Your task to perform on an android device: Show me popular games on the Play Store Image 0: 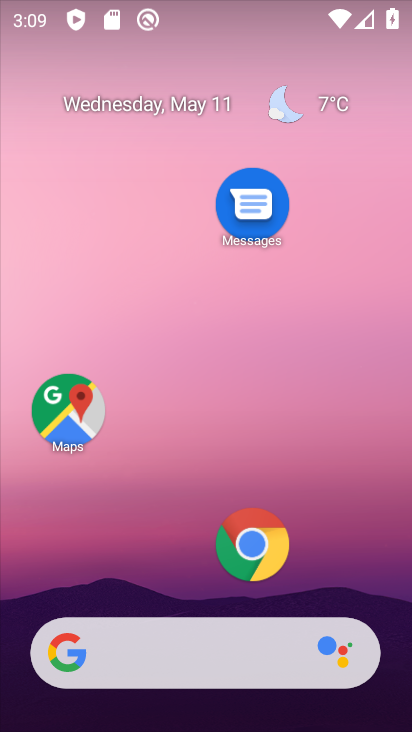
Step 0: drag from (94, 570) to (234, 70)
Your task to perform on an android device: Show me popular games on the Play Store Image 1: 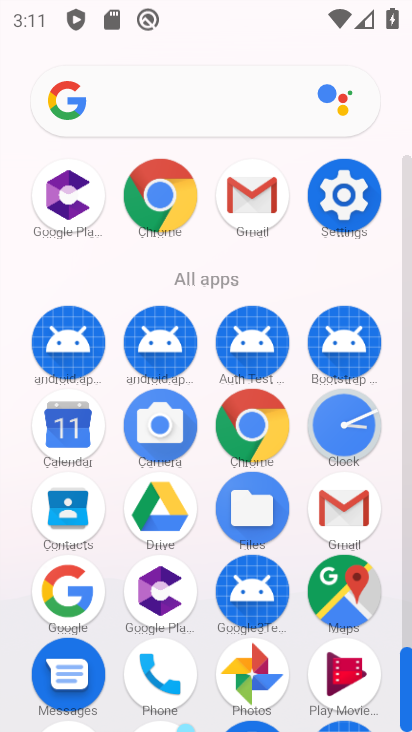
Step 1: drag from (182, 611) to (296, 104)
Your task to perform on an android device: Show me popular games on the Play Store Image 2: 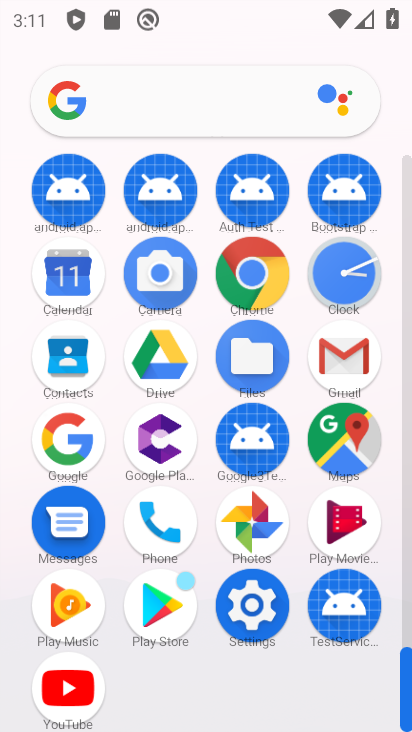
Step 2: click (174, 597)
Your task to perform on an android device: Show me popular games on the Play Store Image 3: 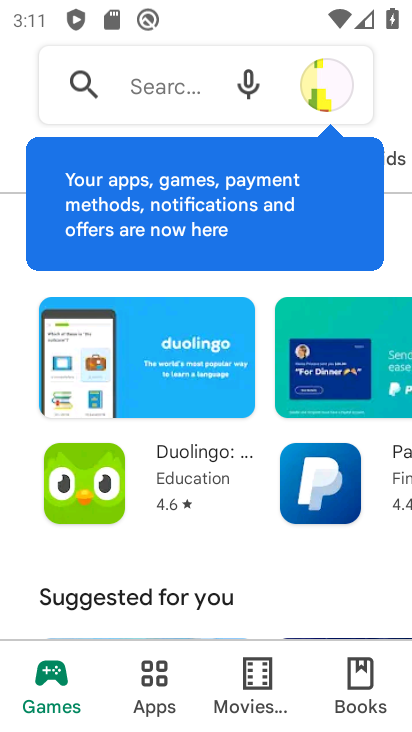
Step 3: click (65, 691)
Your task to perform on an android device: Show me popular games on the Play Store Image 4: 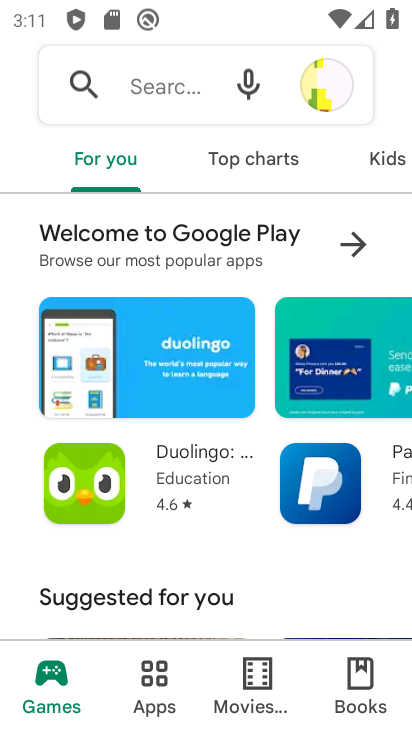
Step 4: drag from (176, 574) to (337, 30)
Your task to perform on an android device: Show me popular games on the Play Store Image 5: 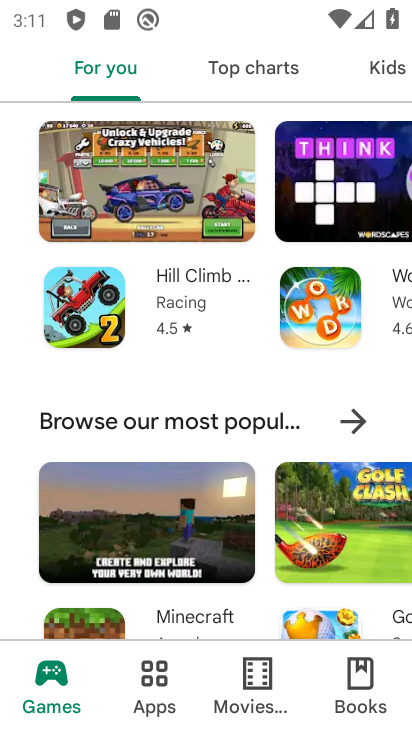
Step 5: drag from (163, 567) to (236, 125)
Your task to perform on an android device: Show me popular games on the Play Store Image 6: 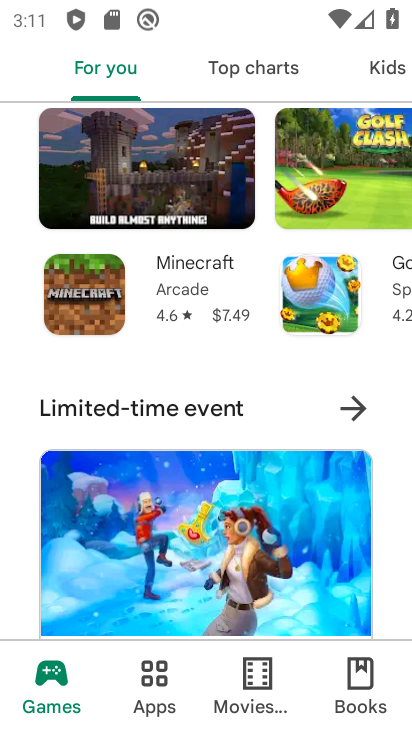
Step 6: drag from (164, 581) to (298, 0)
Your task to perform on an android device: Show me popular games on the Play Store Image 7: 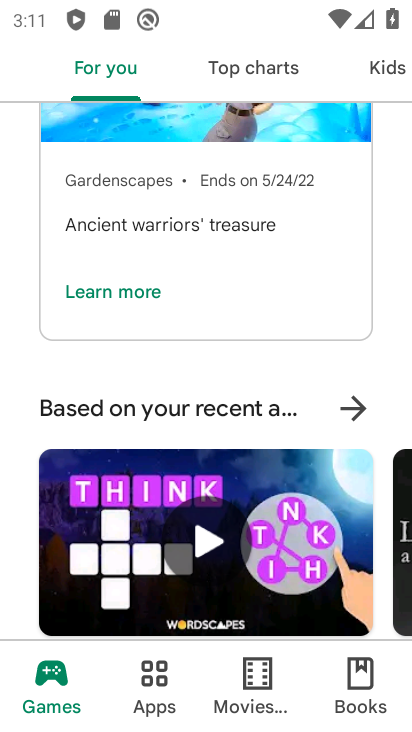
Step 7: drag from (167, 559) to (299, 50)
Your task to perform on an android device: Show me popular games on the Play Store Image 8: 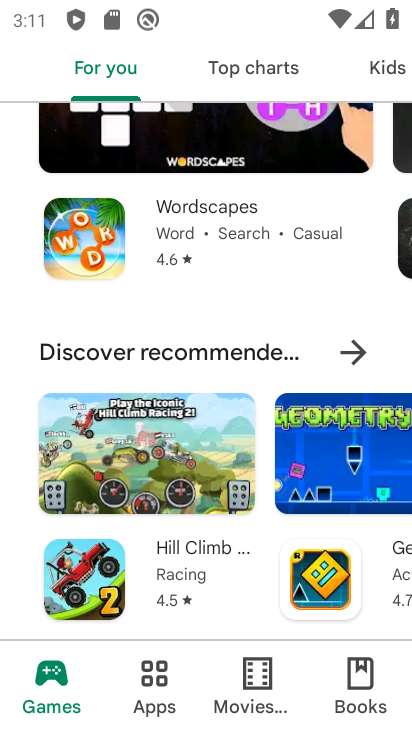
Step 8: drag from (170, 580) to (350, 0)
Your task to perform on an android device: Show me popular games on the Play Store Image 9: 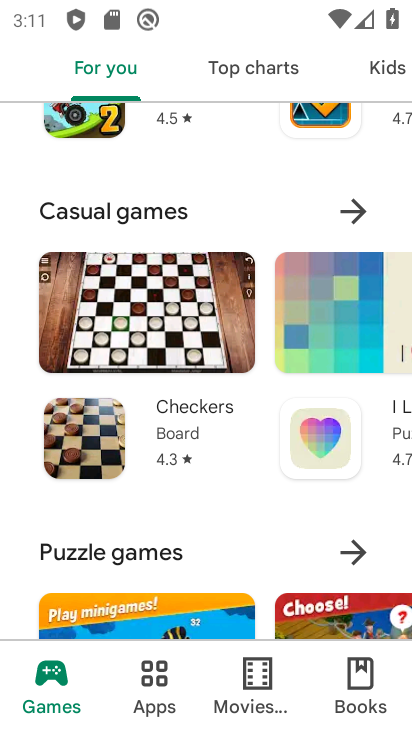
Step 9: drag from (167, 603) to (314, 56)
Your task to perform on an android device: Show me popular games on the Play Store Image 10: 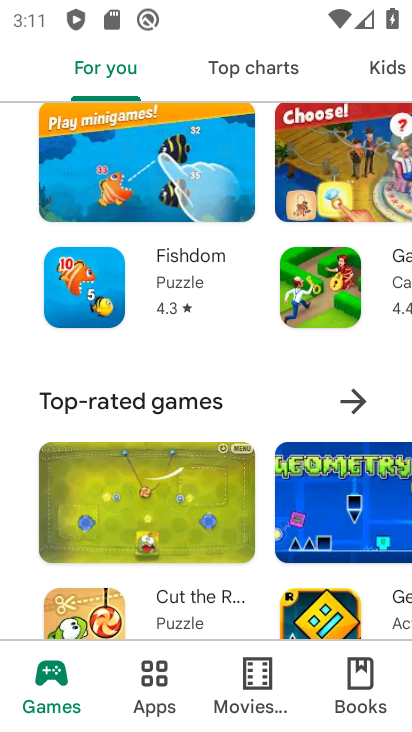
Step 10: drag from (184, 614) to (268, 90)
Your task to perform on an android device: Show me popular games on the Play Store Image 11: 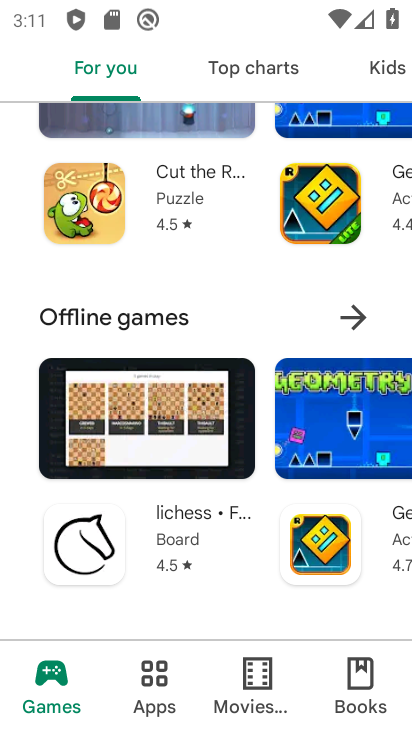
Step 11: drag from (170, 623) to (289, 112)
Your task to perform on an android device: Show me popular games on the Play Store Image 12: 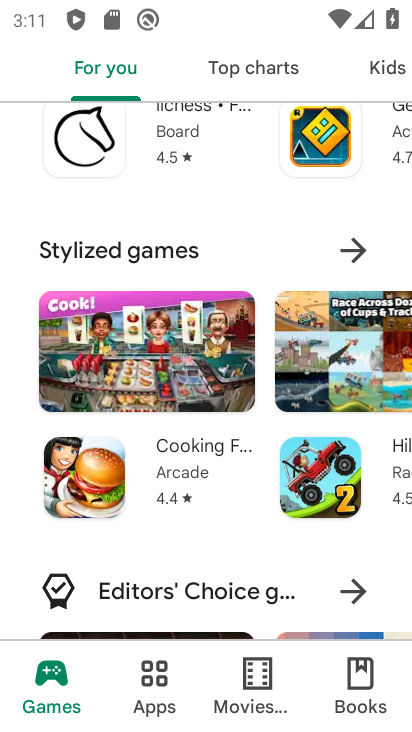
Step 12: drag from (195, 540) to (288, 146)
Your task to perform on an android device: Show me popular games on the Play Store Image 13: 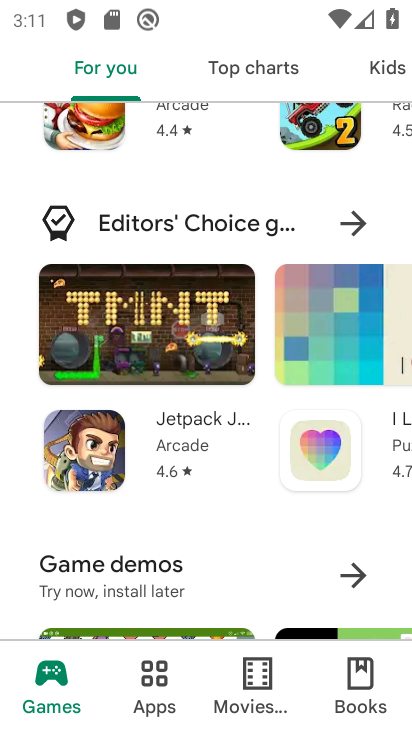
Step 13: drag from (179, 551) to (265, 113)
Your task to perform on an android device: Show me popular games on the Play Store Image 14: 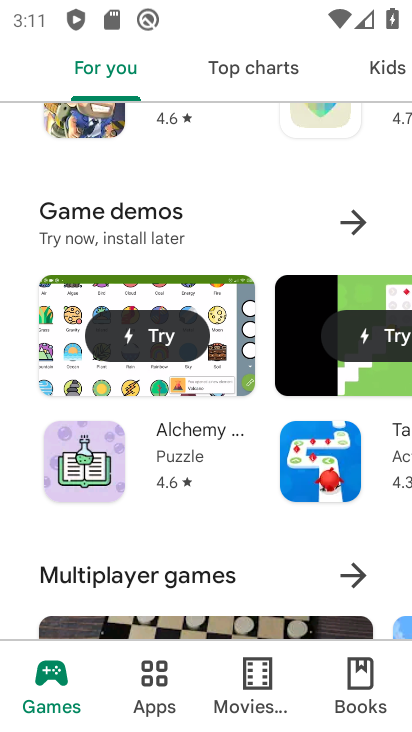
Step 14: drag from (146, 602) to (248, 121)
Your task to perform on an android device: Show me popular games on the Play Store Image 15: 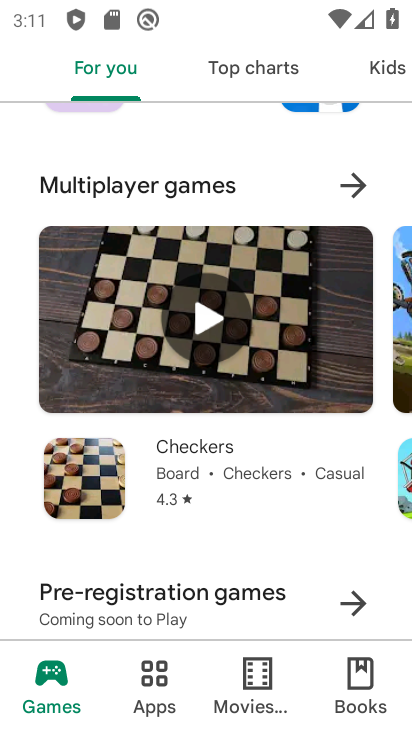
Step 15: drag from (190, 577) to (279, 134)
Your task to perform on an android device: Show me popular games on the Play Store Image 16: 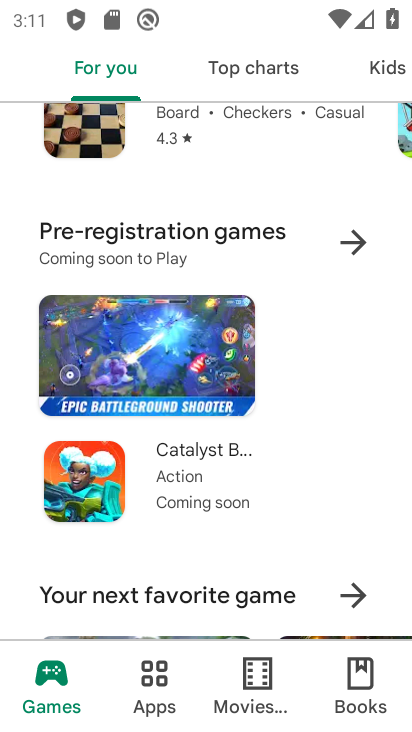
Step 16: drag from (134, 599) to (285, 96)
Your task to perform on an android device: Show me popular games on the Play Store Image 17: 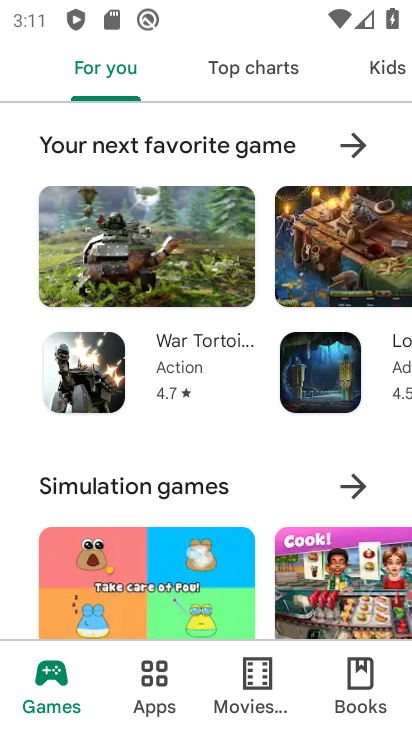
Step 17: drag from (190, 541) to (298, 53)
Your task to perform on an android device: Show me popular games on the Play Store Image 18: 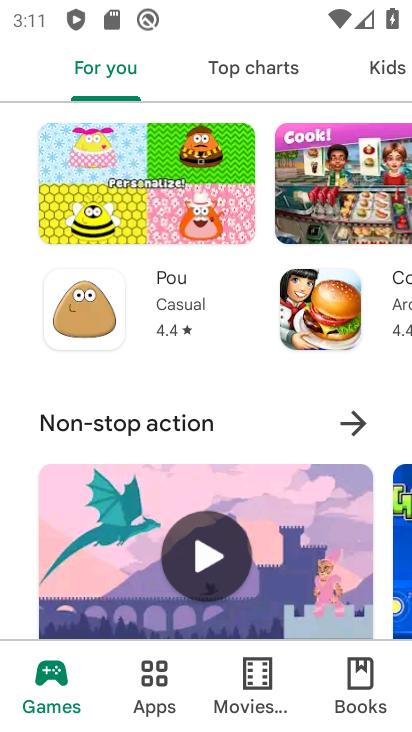
Step 18: drag from (171, 546) to (292, 72)
Your task to perform on an android device: Show me popular games on the Play Store Image 19: 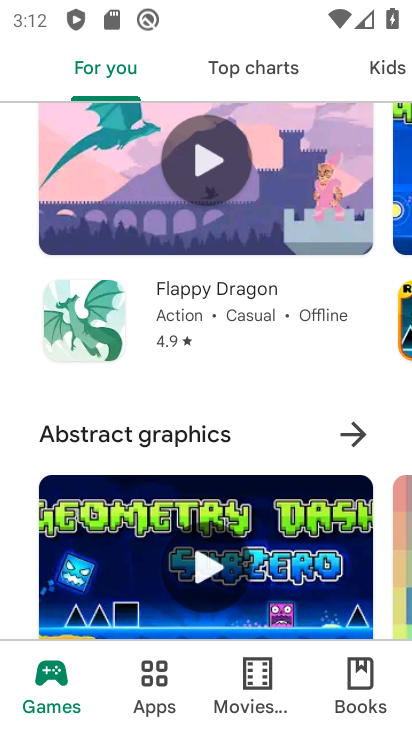
Step 19: drag from (197, 520) to (324, 43)
Your task to perform on an android device: Show me popular games on the Play Store Image 20: 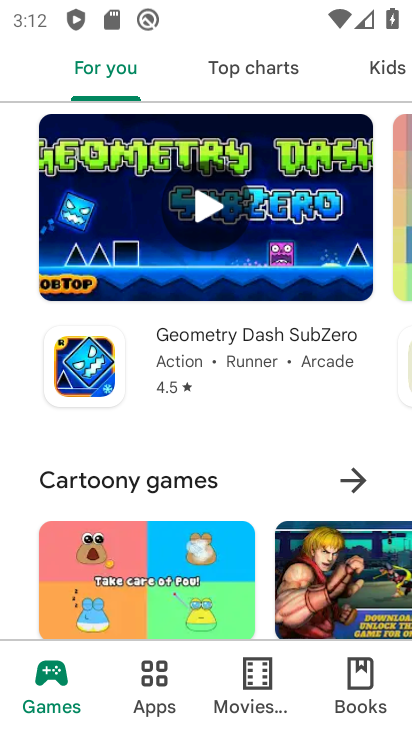
Step 20: drag from (196, 561) to (324, 4)
Your task to perform on an android device: Show me popular games on the Play Store Image 21: 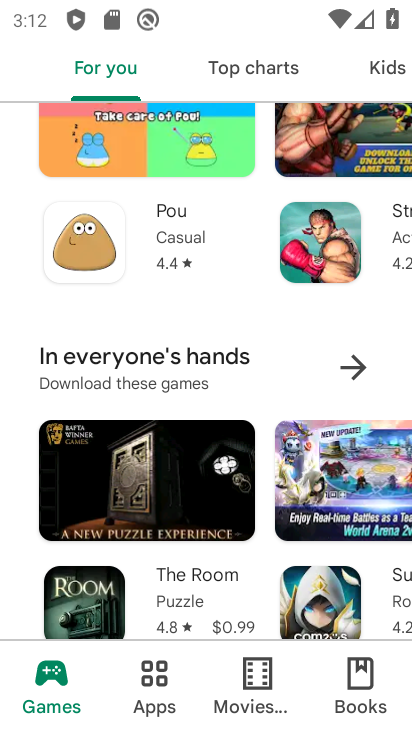
Step 21: drag from (193, 475) to (307, 40)
Your task to perform on an android device: Show me popular games on the Play Store Image 22: 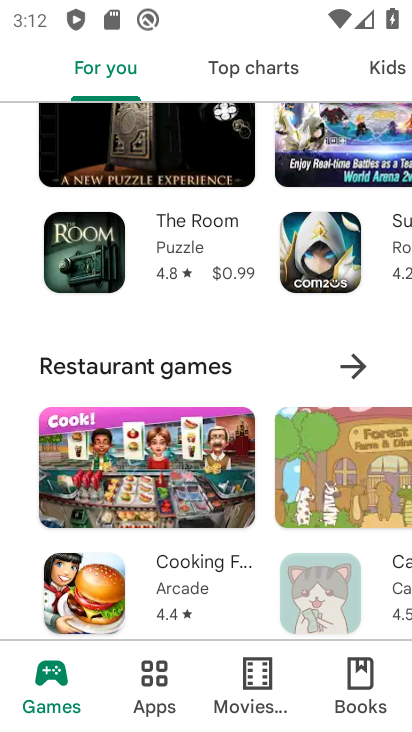
Step 22: drag from (164, 532) to (264, 180)
Your task to perform on an android device: Show me popular games on the Play Store Image 23: 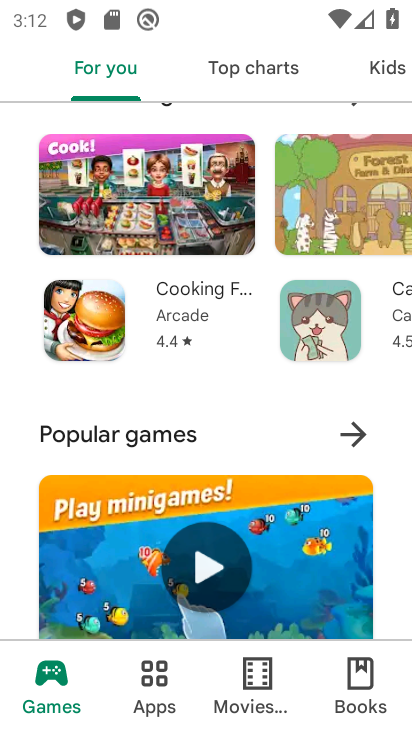
Step 23: drag from (163, 594) to (208, 405)
Your task to perform on an android device: Show me popular games on the Play Store Image 24: 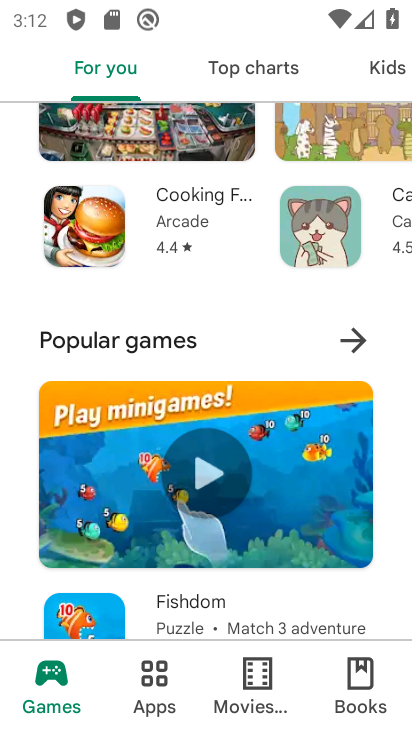
Step 24: click (355, 342)
Your task to perform on an android device: Show me popular games on the Play Store Image 25: 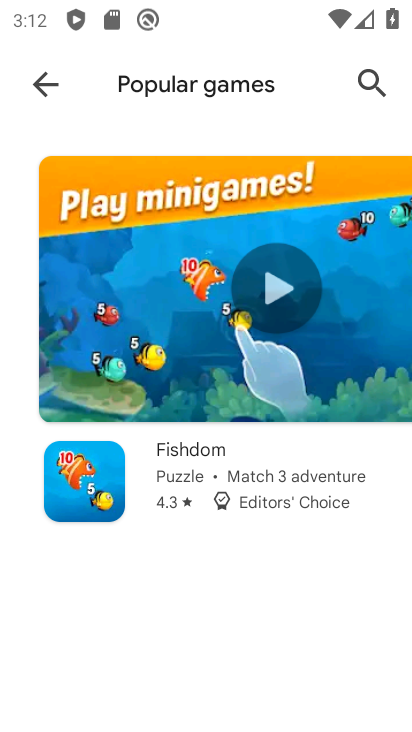
Step 25: task complete